Your task to perform on an android device: Open the calendar app, open the side menu, and click the "Day" option Image 0: 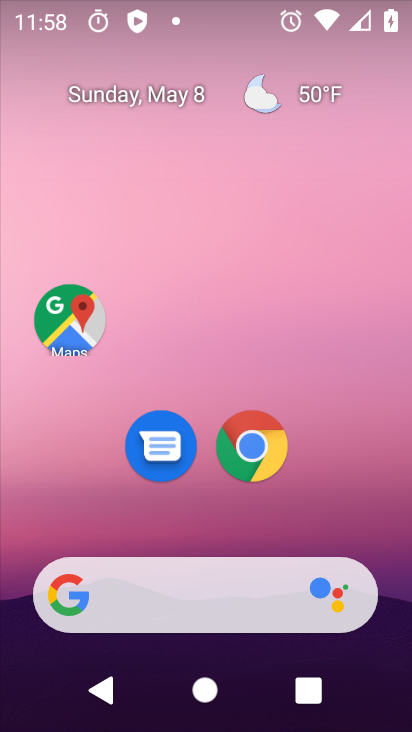
Step 0: drag from (284, 524) to (232, 40)
Your task to perform on an android device: Open the calendar app, open the side menu, and click the "Day" option Image 1: 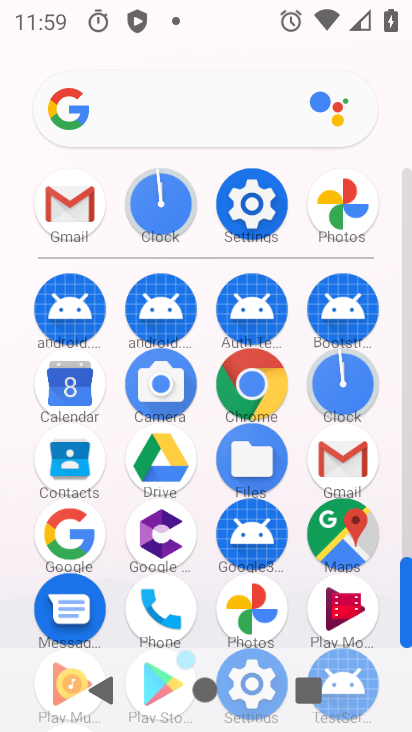
Step 1: click (61, 386)
Your task to perform on an android device: Open the calendar app, open the side menu, and click the "Day" option Image 2: 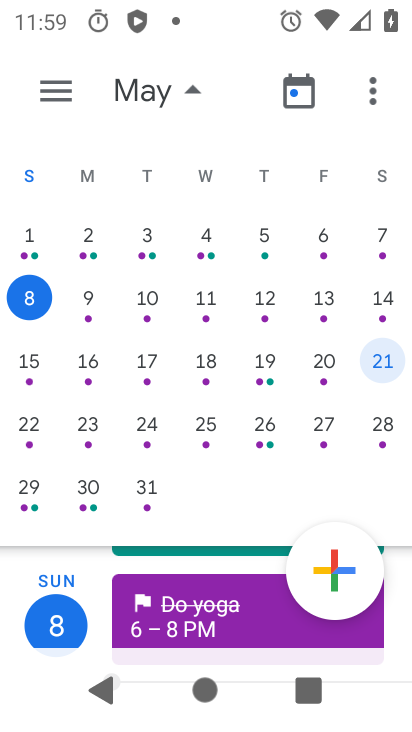
Step 2: click (42, 81)
Your task to perform on an android device: Open the calendar app, open the side menu, and click the "Day" option Image 3: 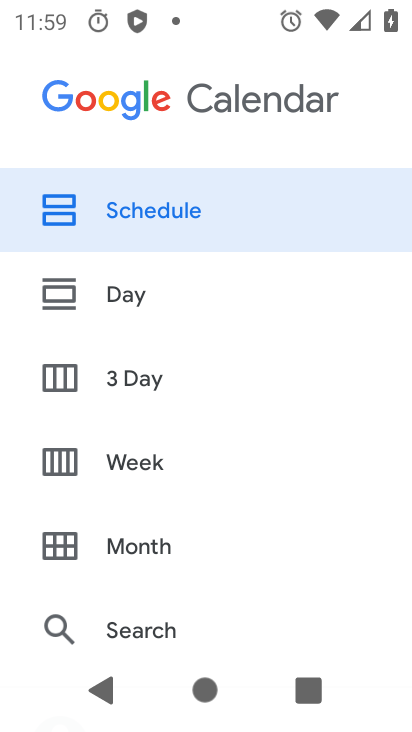
Step 3: click (159, 307)
Your task to perform on an android device: Open the calendar app, open the side menu, and click the "Day" option Image 4: 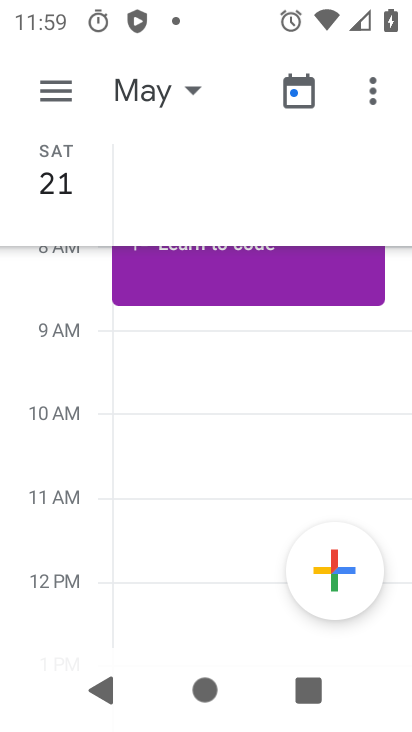
Step 4: task complete